Your task to perform on an android device: Open privacy settings Image 0: 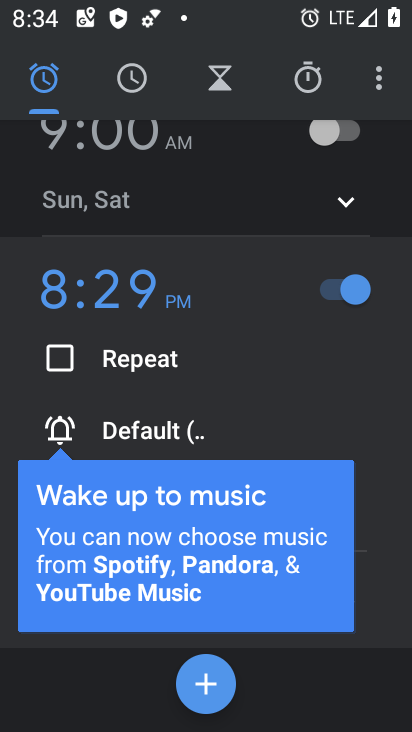
Step 0: press home button
Your task to perform on an android device: Open privacy settings Image 1: 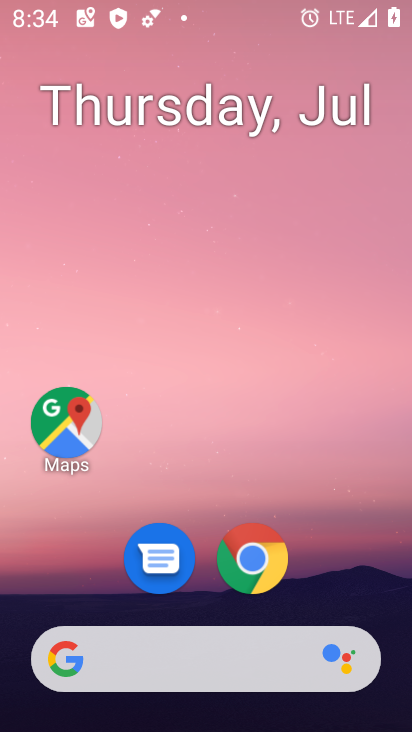
Step 1: drag from (264, 546) to (261, 213)
Your task to perform on an android device: Open privacy settings Image 2: 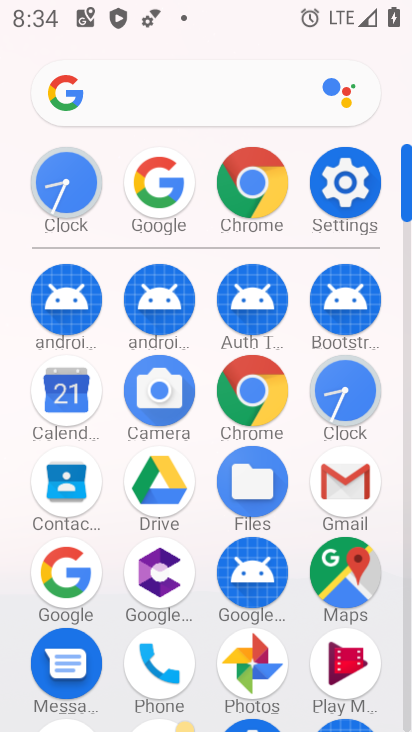
Step 2: click (372, 161)
Your task to perform on an android device: Open privacy settings Image 3: 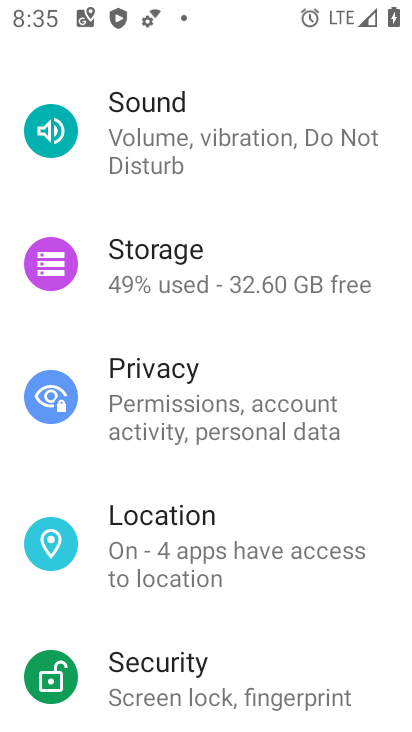
Step 3: drag from (195, 517) to (203, 406)
Your task to perform on an android device: Open privacy settings Image 4: 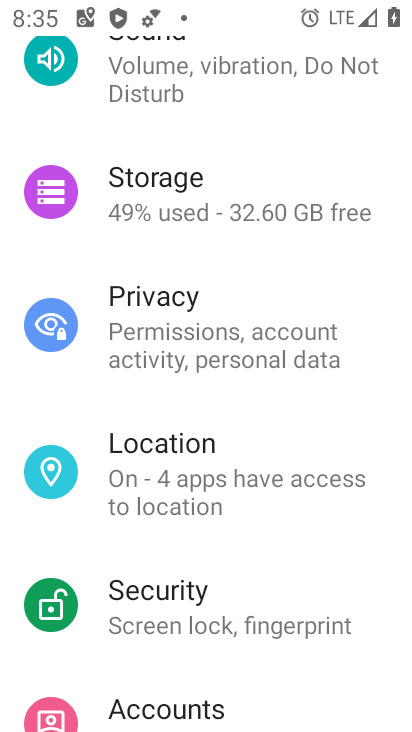
Step 4: click (259, 339)
Your task to perform on an android device: Open privacy settings Image 5: 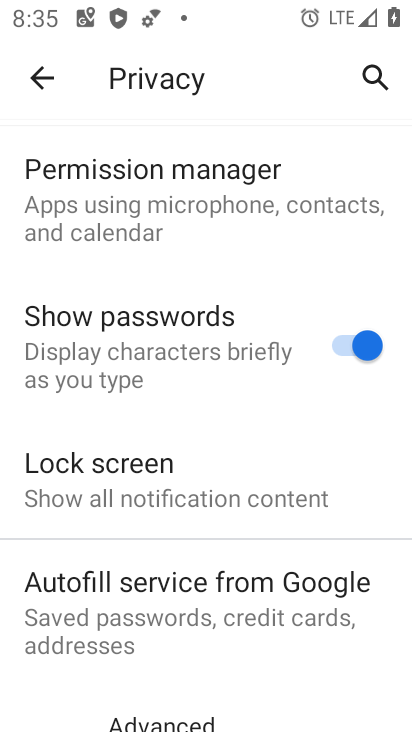
Step 5: task complete